Your task to perform on an android device: toggle pop-ups in chrome Image 0: 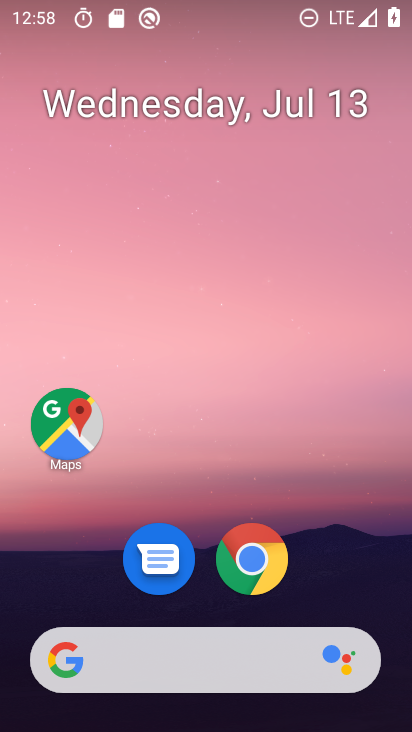
Step 0: drag from (152, 681) to (215, 278)
Your task to perform on an android device: toggle pop-ups in chrome Image 1: 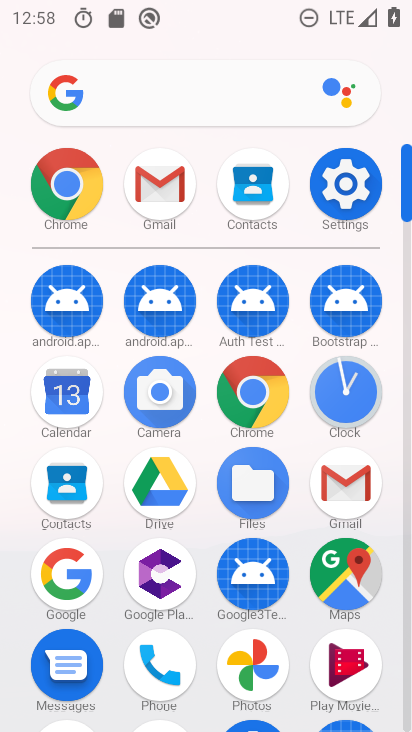
Step 1: click (262, 397)
Your task to perform on an android device: toggle pop-ups in chrome Image 2: 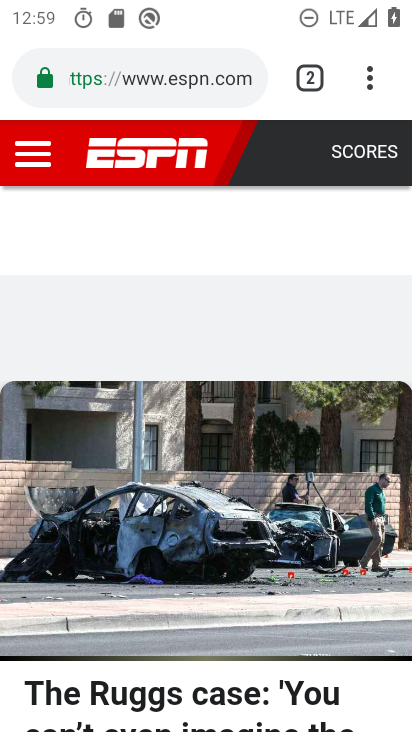
Step 2: click (382, 95)
Your task to perform on an android device: toggle pop-ups in chrome Image 3: 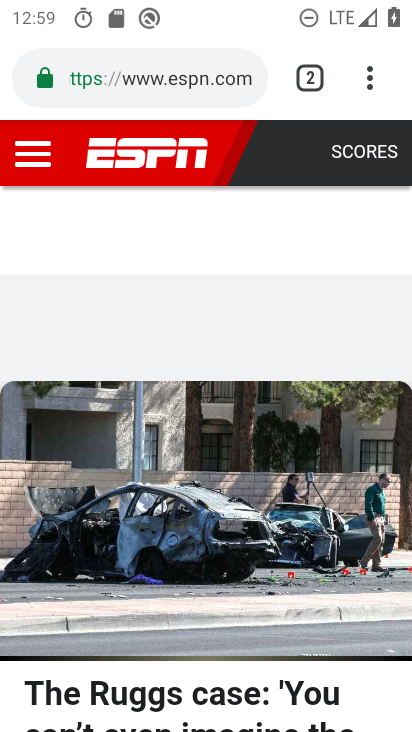
Step 3: click (372, 62)
Your task to perform on an android device: toggle pop-ups in chrome Image 4: 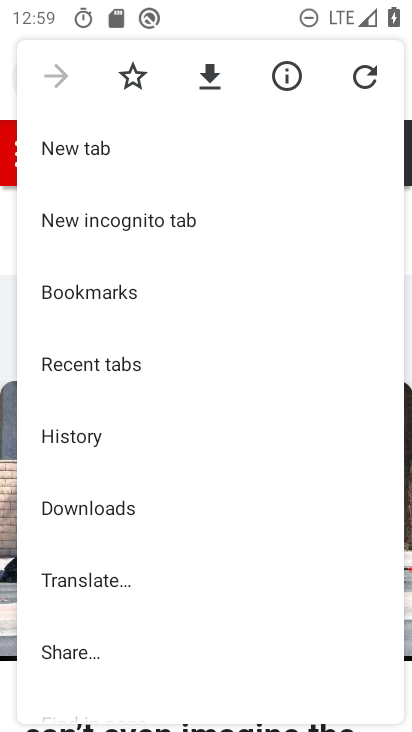
Step 4: drag from (172, 585) to (214, 349)
Your task to perform on an android device: toggle pop-ups in chrome Image 5: 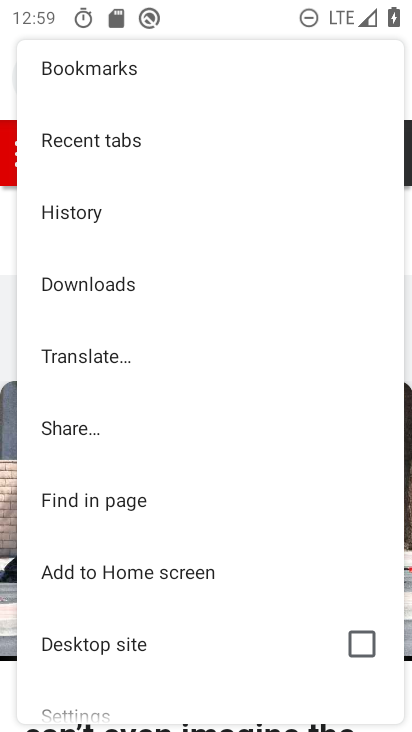
Step 5: drag from (140, 585) to (210, 320)
Your task to perform on an android device: toggle pop-ups in chrome Image 6: 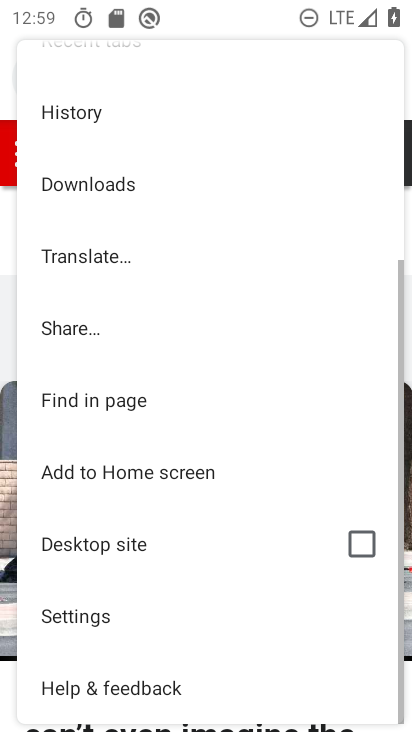
Step 6: click (90, 610)
Your task to perform on an android device: toggle pop-ups in chrome Image 7: 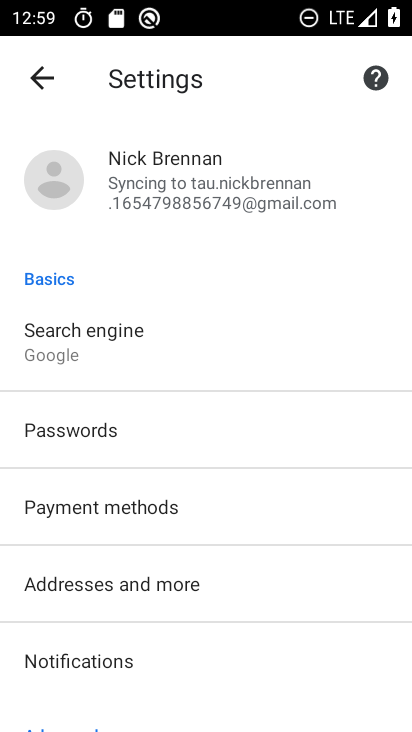
Step 7: drag from (92, 606) to (245, 104)
Your task to perform on an android device: toggle pop-ups in chrome Image 8: 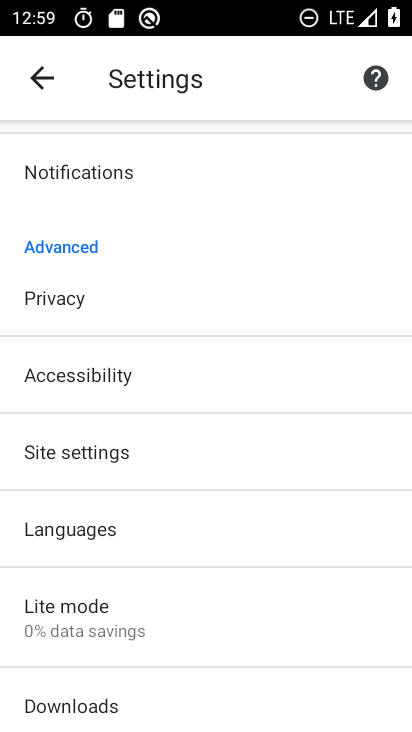
Step 8: drag from (171, 626) to (188, 219)
Your task to perform on an android device: toggle pop-ups in chrome Image 9: 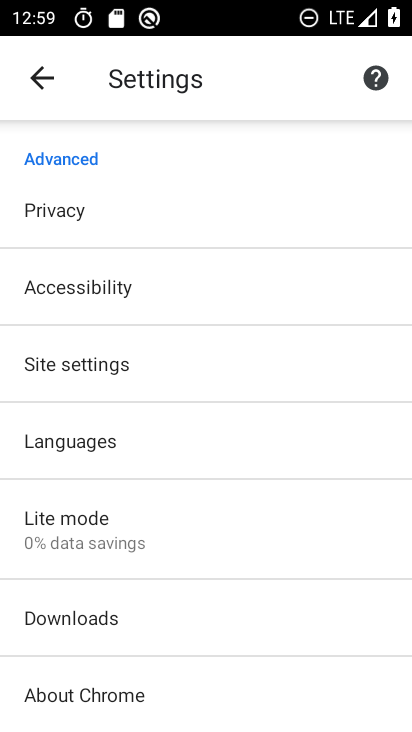
Step 9: click (130, 377)
Your task to perform on an android device: toggle pop-ups in chrome Image 10: 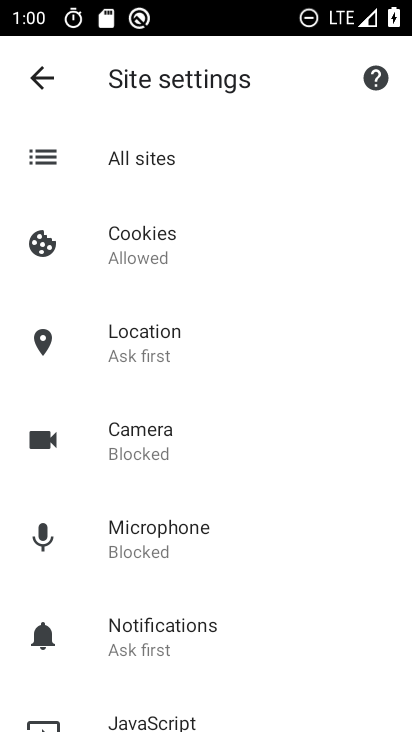
Step 10: drag from (102, 598) to (197, 223)
Your task to perform on an android device: toggle pop-ups in chrome Image 11: 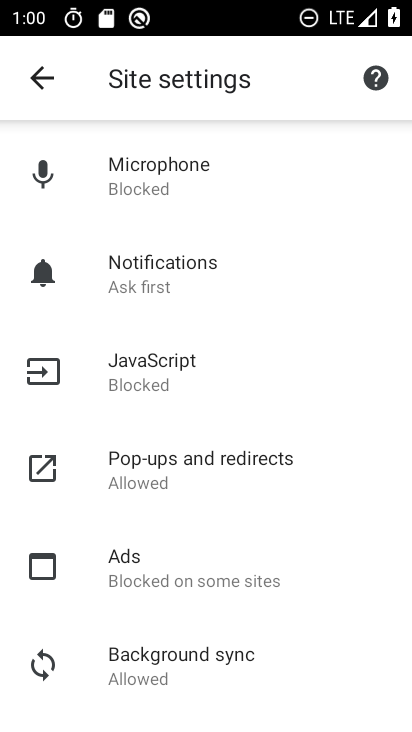
Step 11: click (191, 466)
Your task to perform on an android device: toggle pop-ups in chrome Image 12: 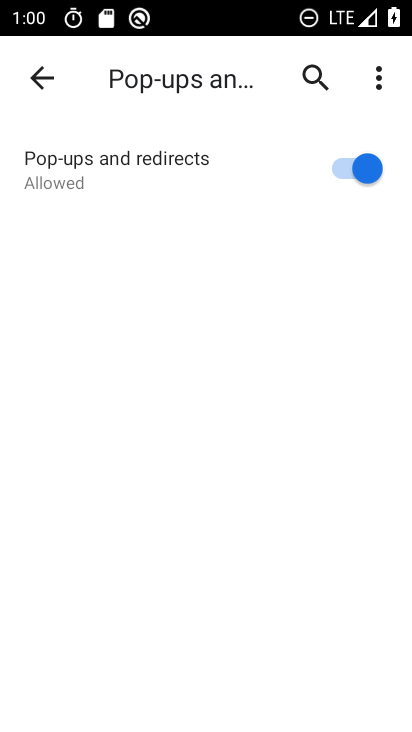
Step 12: click (349, 174)
Your task to perform on an android device: toggle pop-ups in chrome Image 13: 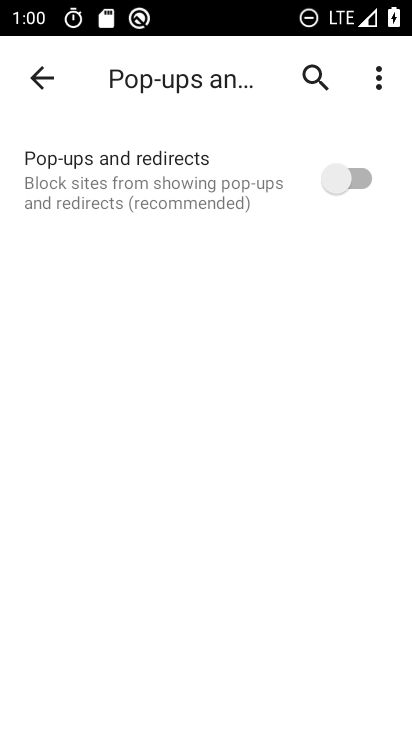
Step 13: task complete